Your task to perform on an android device: Open accessibility settings Image 0: 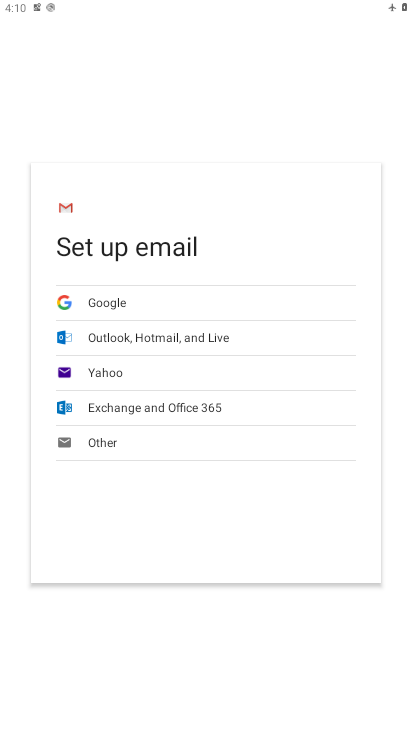
Step 0: press home button
Your task to perform on an android device: Open accessibility settings Image 1: 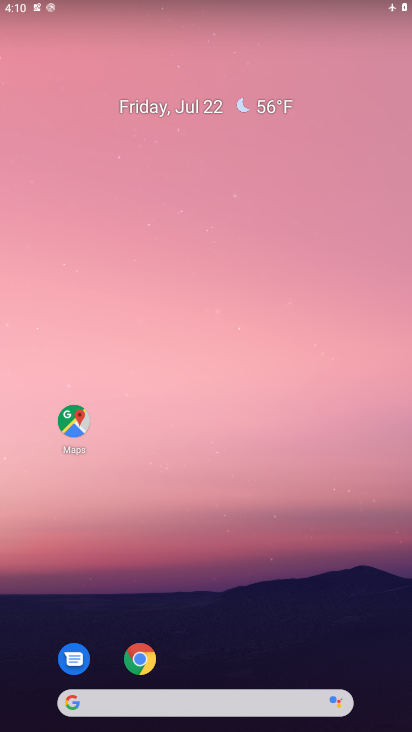
Step 1: drag from (197, 678) to (201, 340)
Your task to perform on an android device: Open accessibility settings Image 2: 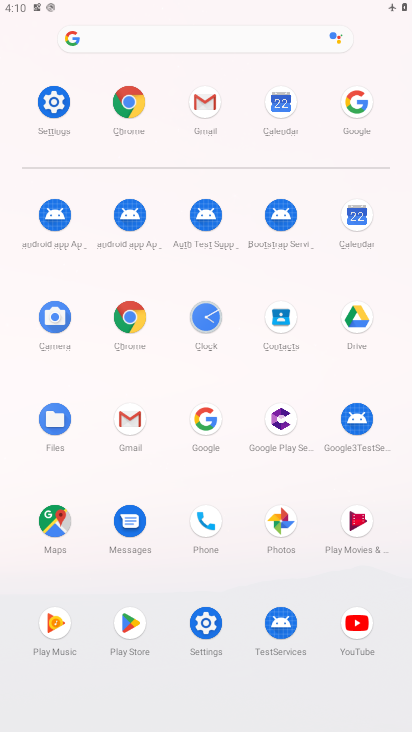
Step 2: click (51, 109)
Your task to perform on an android device: Open accessibility settings Image 3: 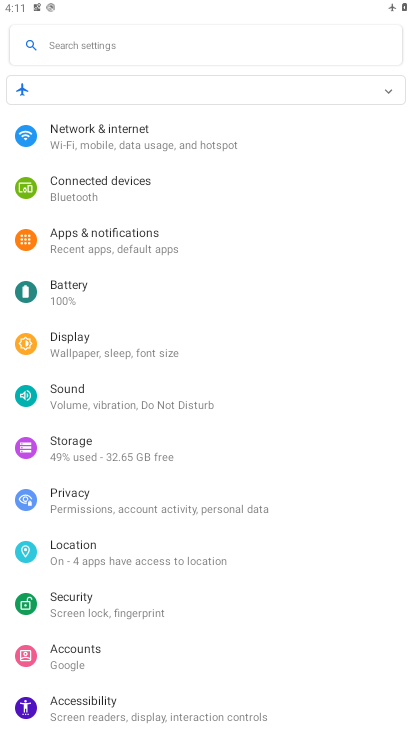
Step 3: click (110, 713)
Your task to perform on an android device: Open accessibility settings Image 4: 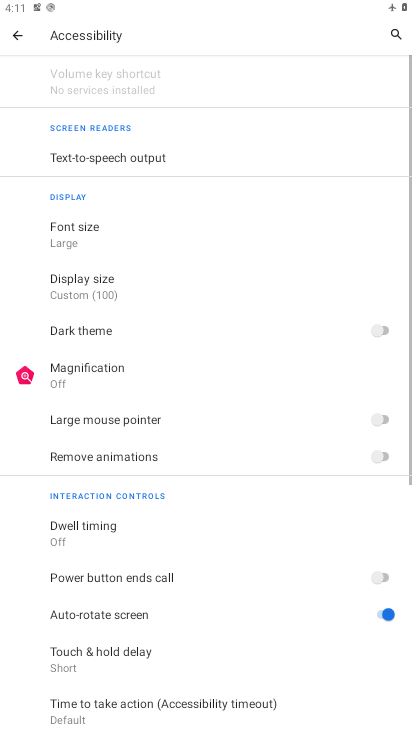
Step 4: task complete